Your task to perform on an android device: toggle data saver in the chrome app Image 0: 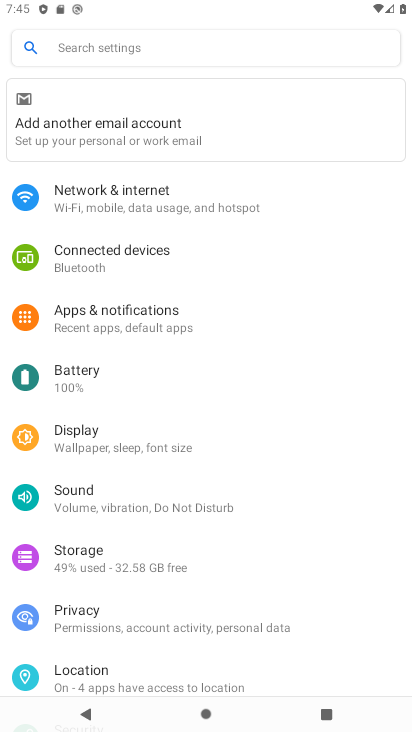
Step 0: press home button
Your task to perform on an android device: toggle data saver in the chrome app Image 1: 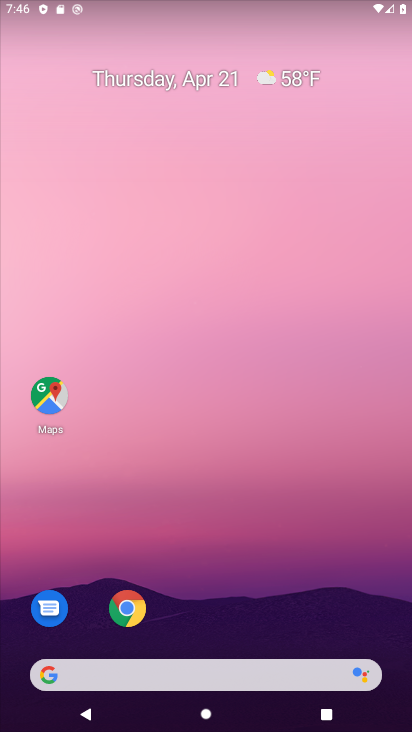
Step 1: click (125, 614)
Your task to perform on an android device: toggle data saver in the chrome app Image 2: 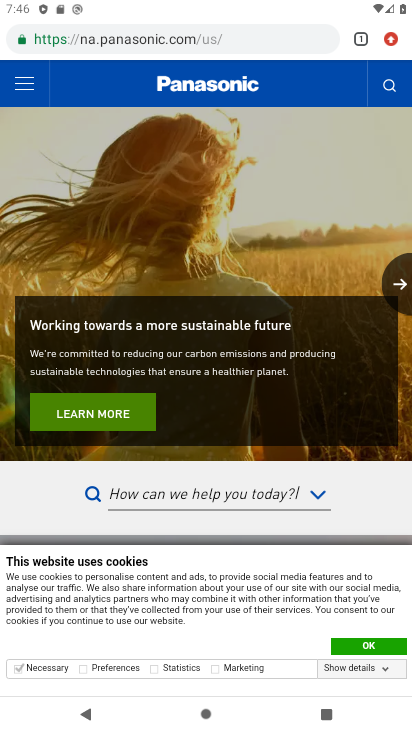
Step 2: click (389, 35)
Your task to perform on an android device: toggle data saver in the chrome app Image 3: 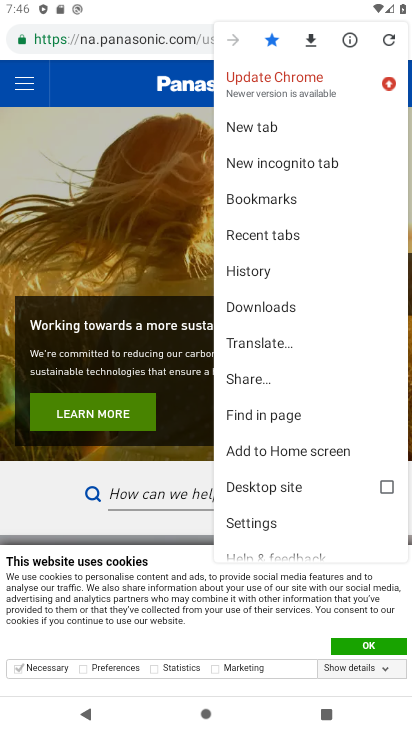
Step 3: click (268, 518)
Your task to perform on an android device: toggle data saver in the chrome app Image 4: 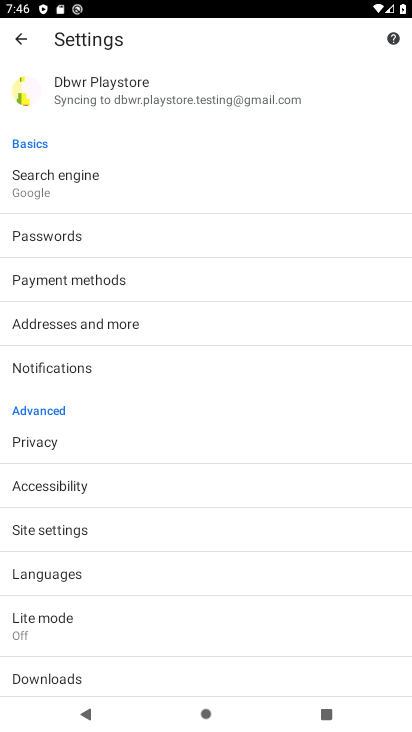
Step 4: click (172, 635)
Your task to perform on an android device: toggle data saver in the chrome app Image 5: 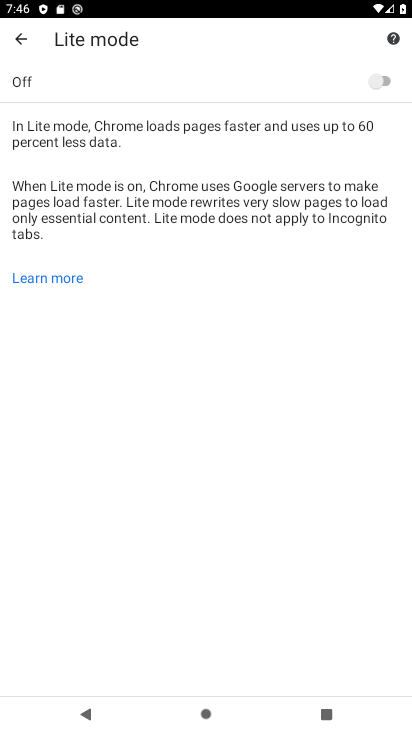
Step 5: click (378, 71)
Your task to perform on an android device: toggle data saver in the chrome app Image 6: 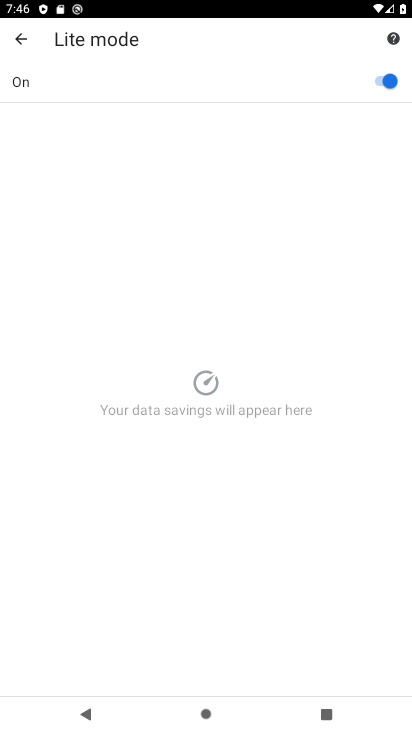
Step 6: task complete